Your task to perform on an android device: Go to Google maps Image 0: 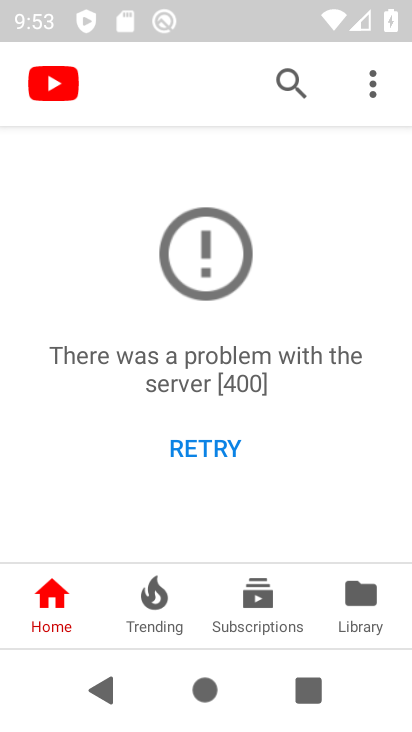
Step 0: press home button
Your task to perform on an android device: Go to Google maps Image 1: 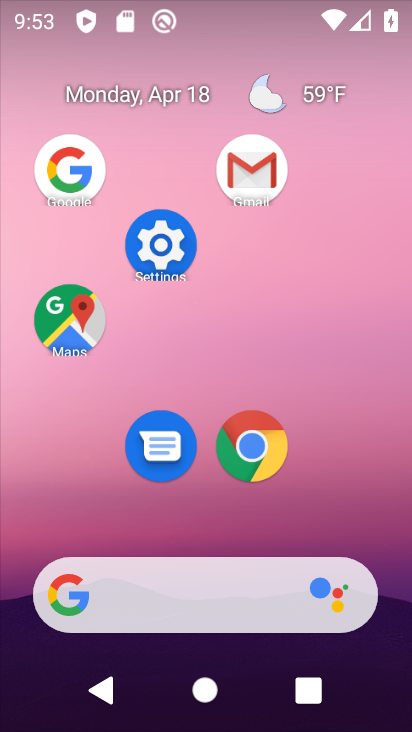
Step 1: click (92, 327)
Your task to perform on an android device: Go to Google maps Image 2: 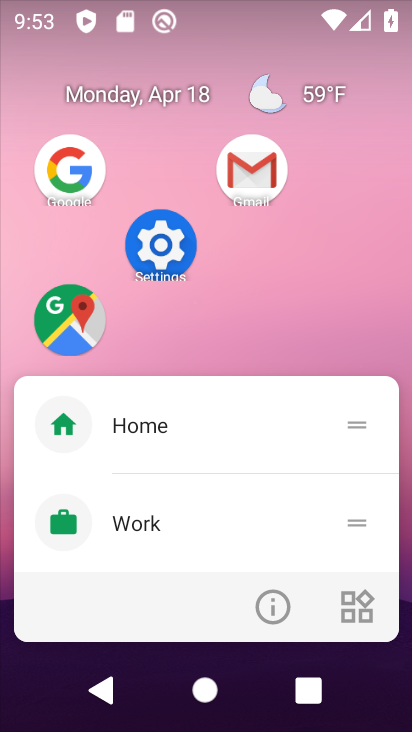
Step 2: click (59, 327)
Your task to perform on an android device: Go to Google maps Image 3: 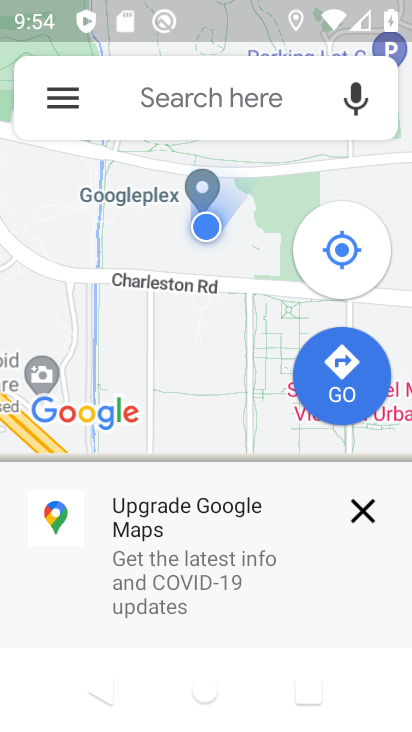
Step 3: task complete